Your task to perform on an android device: View the shopping cart on newegg. Add panasonic triple a to the cart on newegg Image 0: 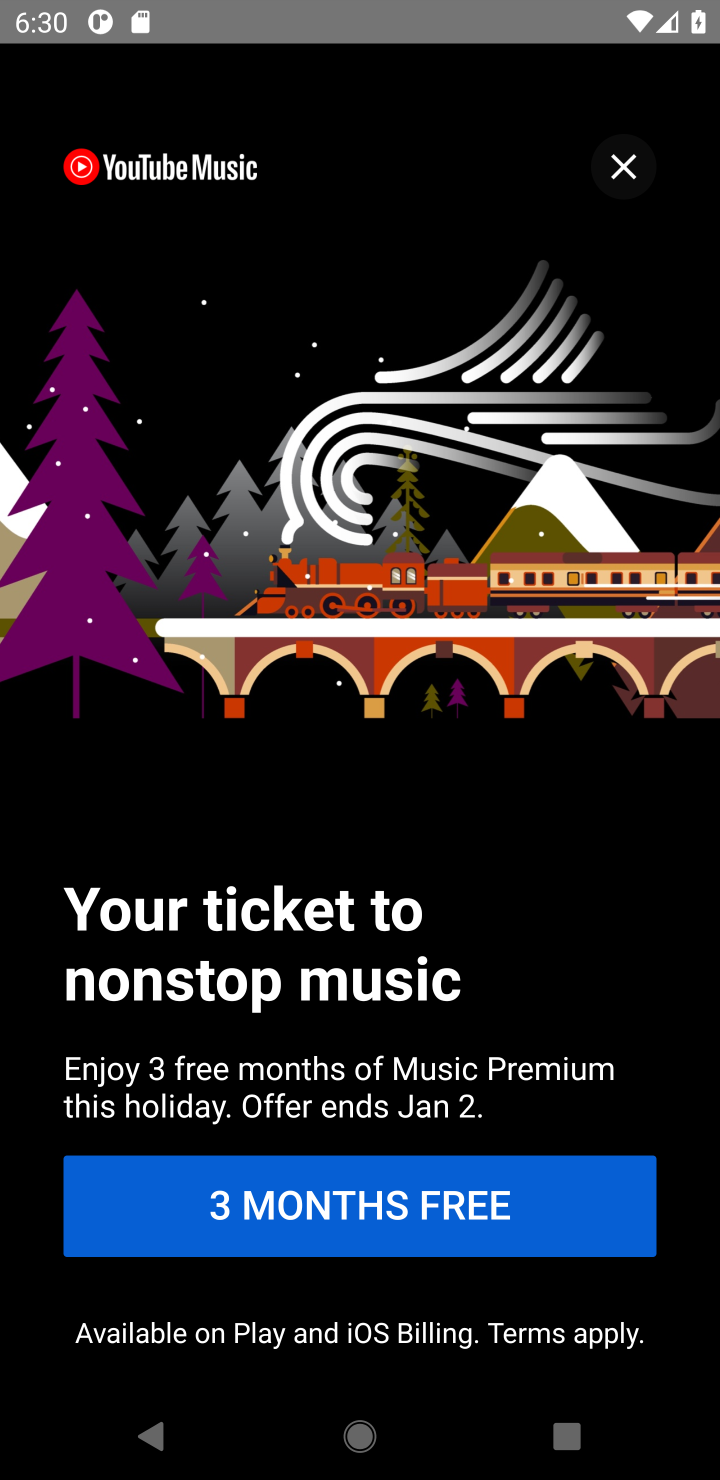
Step 0: press home button
Your task to perform on an android device: View the shopping cart on newegg. Add panasonic triple a to the cart on newegg Image 1: 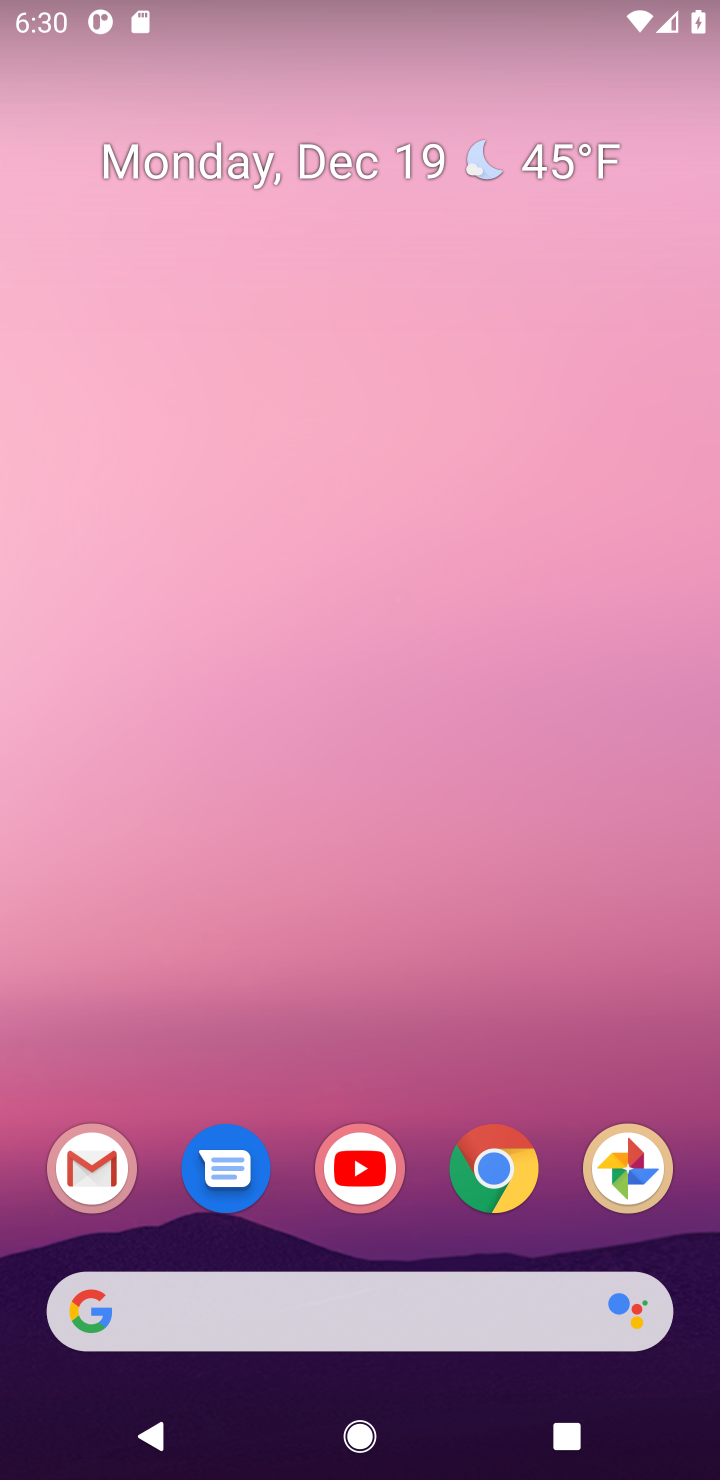
Step 1: click (503, 1169)
Your task to perform on an android device: View the shopping cart on newegg. Add panasonic triple a to the cart on newegg Image 2: 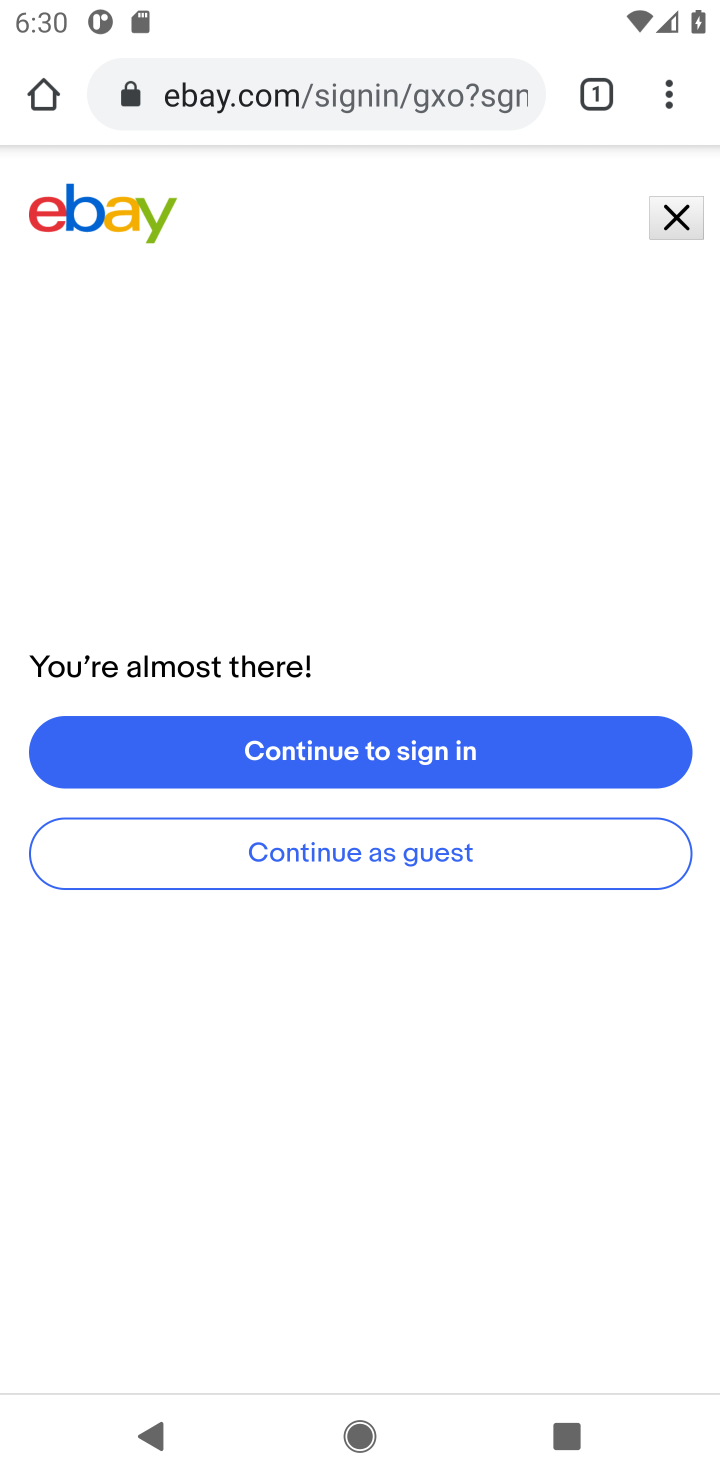
Step 2: click (335, 86)
Your task to perform on an android device: View the shopping cart on newegg. Add panasonic triple a to the cart on newegg Image 3: 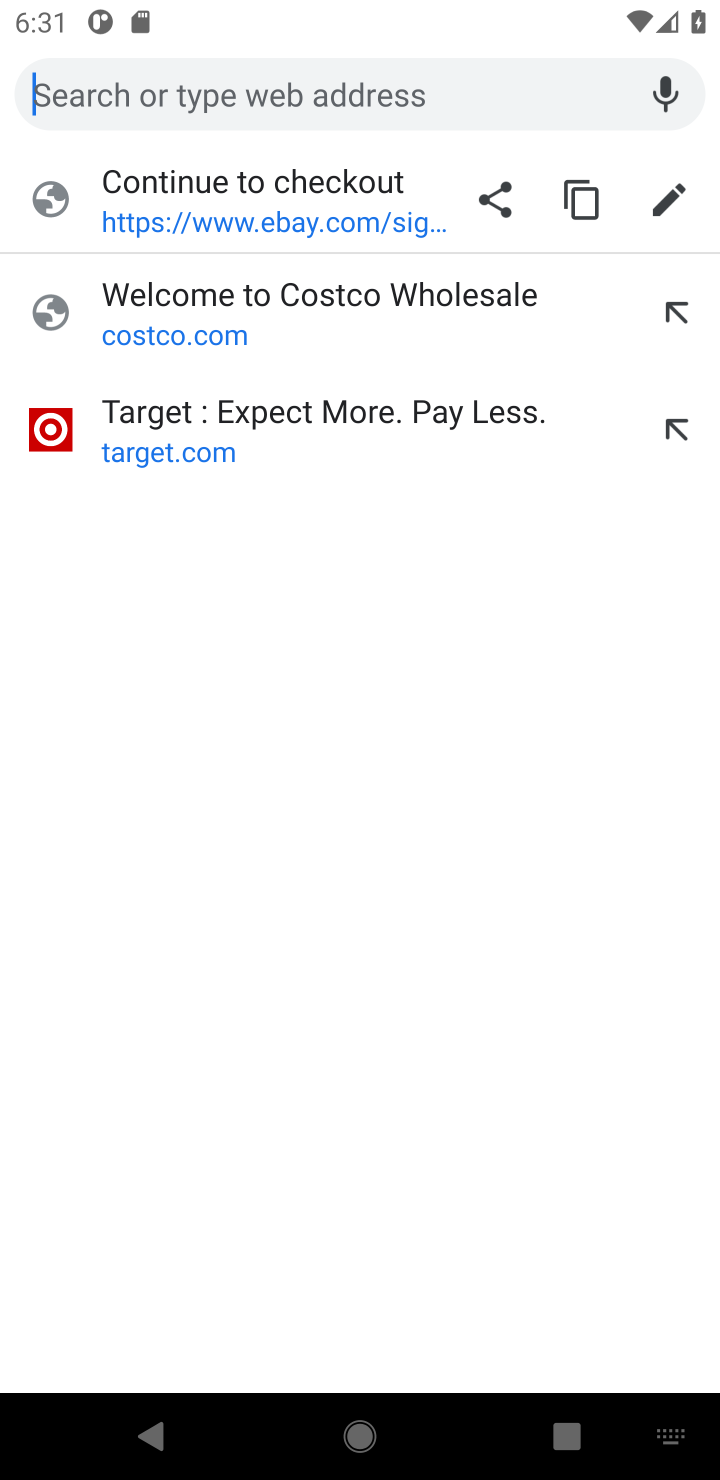
Step 3: type "newegg.com"
Your task to perform on an android device: View the shopping cart on newegg. Add panasonic triple a to the cart on newegg Image 4: 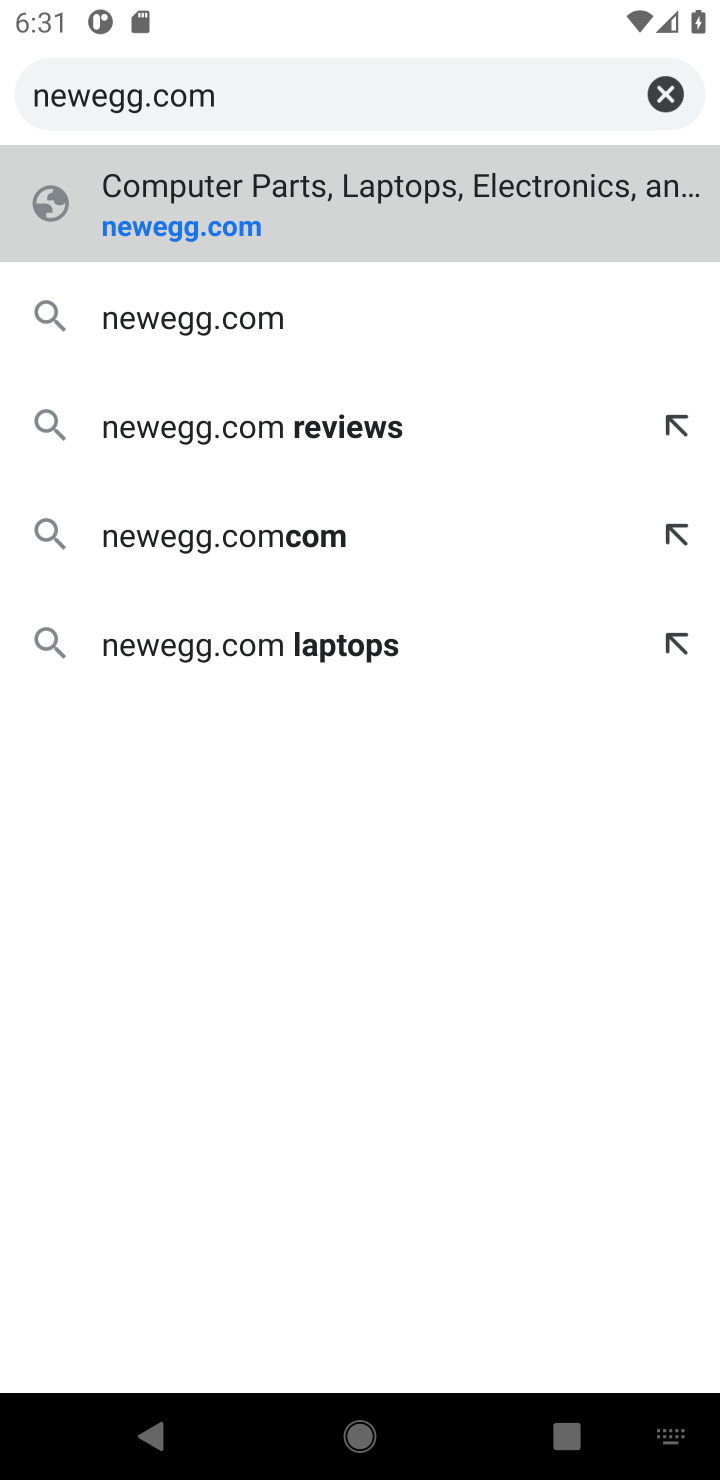
Step 4: click (129, 219)
Your task to perform on an android device: View the shopping cart on newegg. Add panasonic triple a to the cart on newegg Image 5: 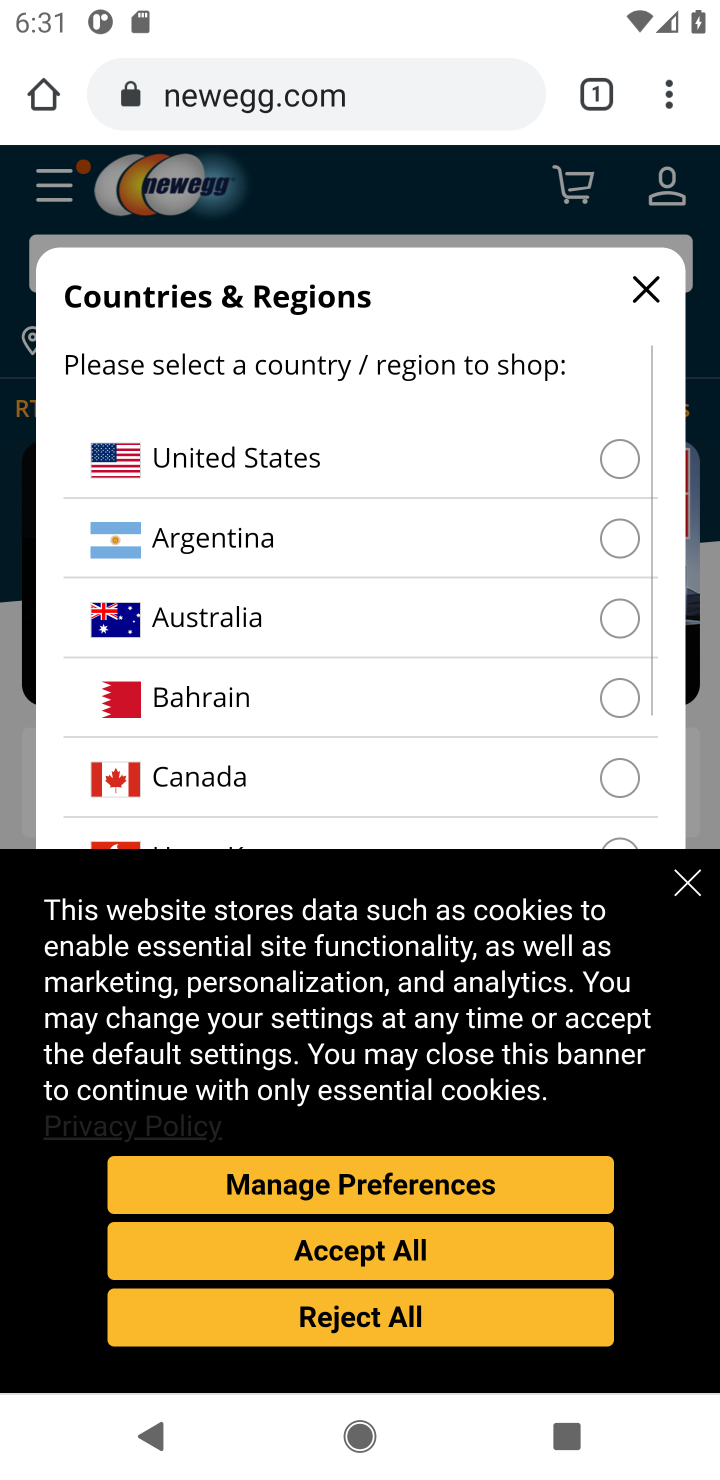
Step 5: click (688, 882)
Your task to perform on an android device: View the shopping cart on newegg. Add panasonic triple a to the cart on newegg Image 6: 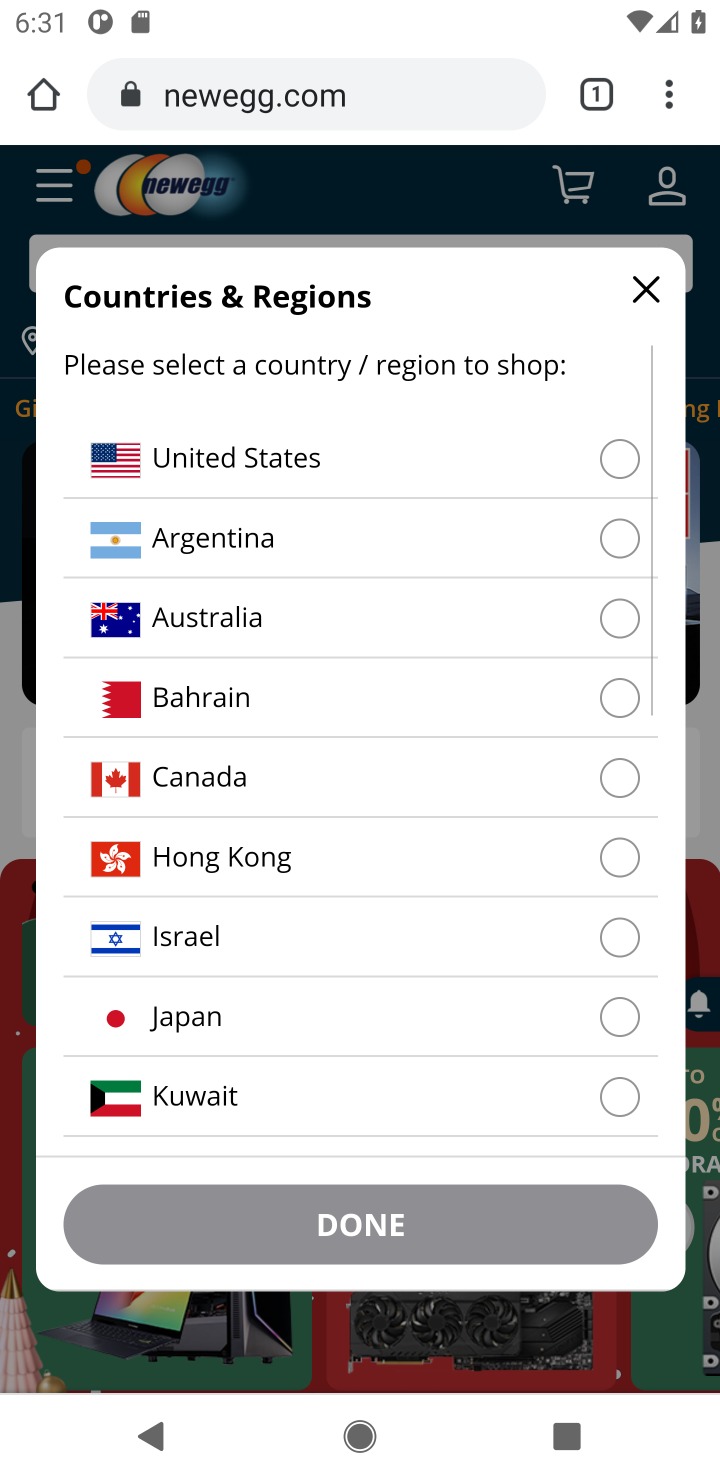
Step 6: click (237, 461)
Your task to perform on an android device: View the shopping cart on newegg. Add panasonic triple a to the cart on newegg Image 7: 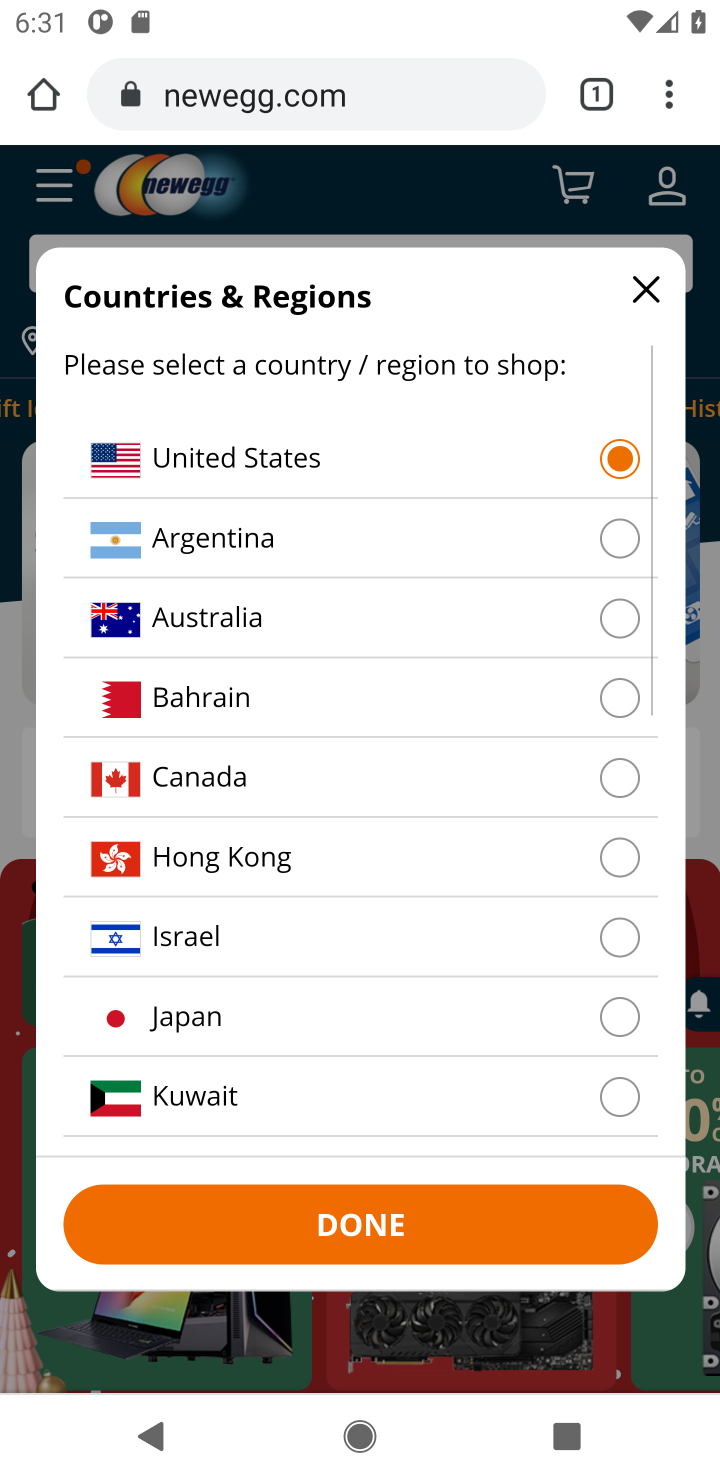
Step 7: click (330, 1234)
Your task to perform on an android device: View the shopping cart on newegg. Add panasonic triple a to the cart on newegg Image 8: 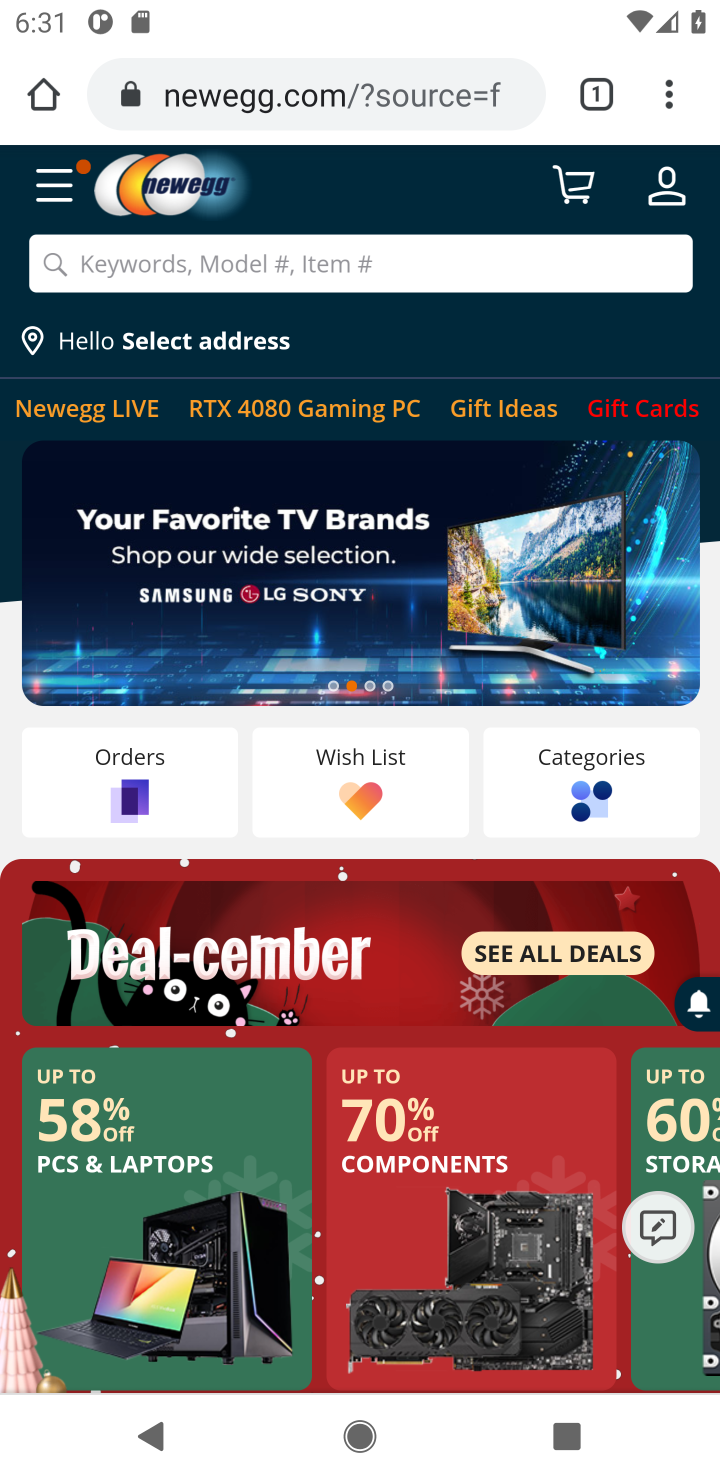
Step 8: click (576, 199)
Your task to perform on an android device: View the shopping cart on newegg. Add panasonic triple a to the cart on newegg Image 9: 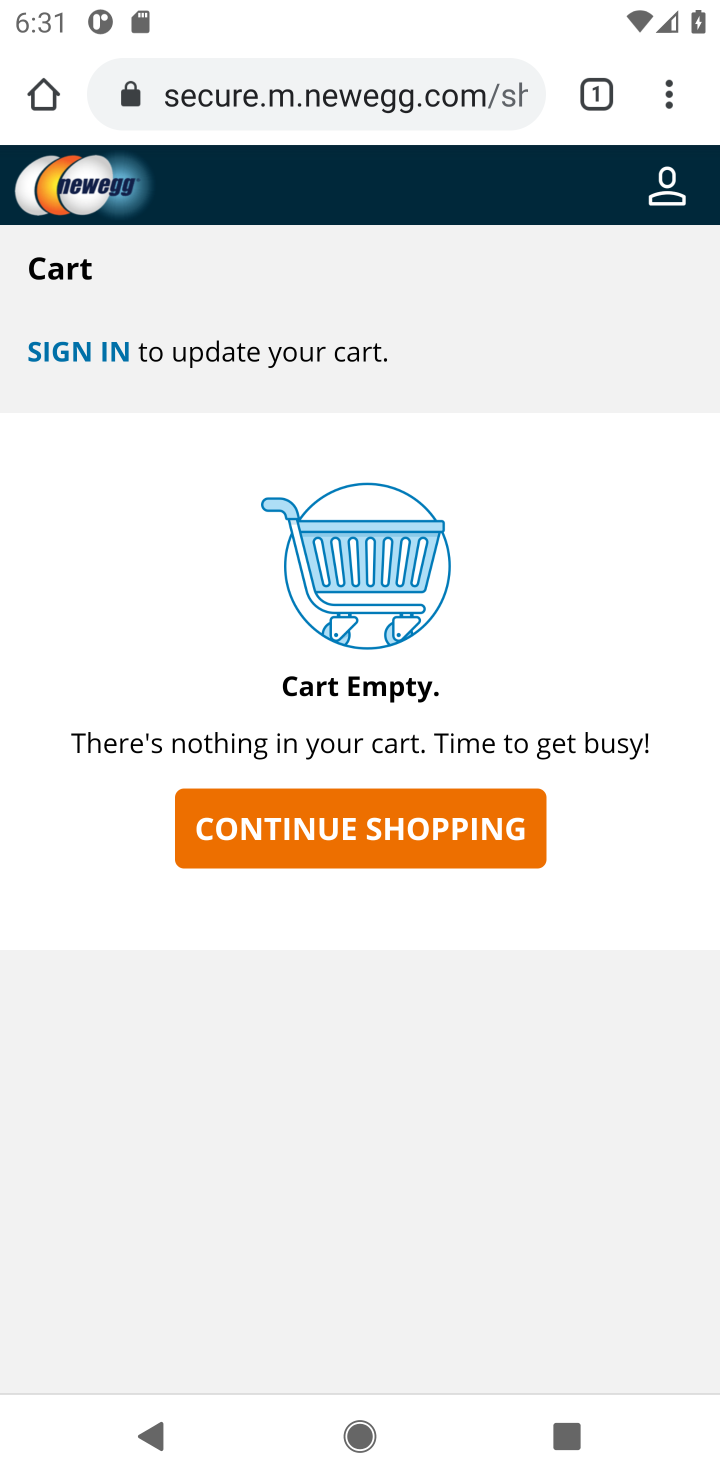
Step 9: click (367, 845)
Your task to perform on an android device: View the shopping cart on newegg. Add panasonic triple a to the cart on newegg Image 10: 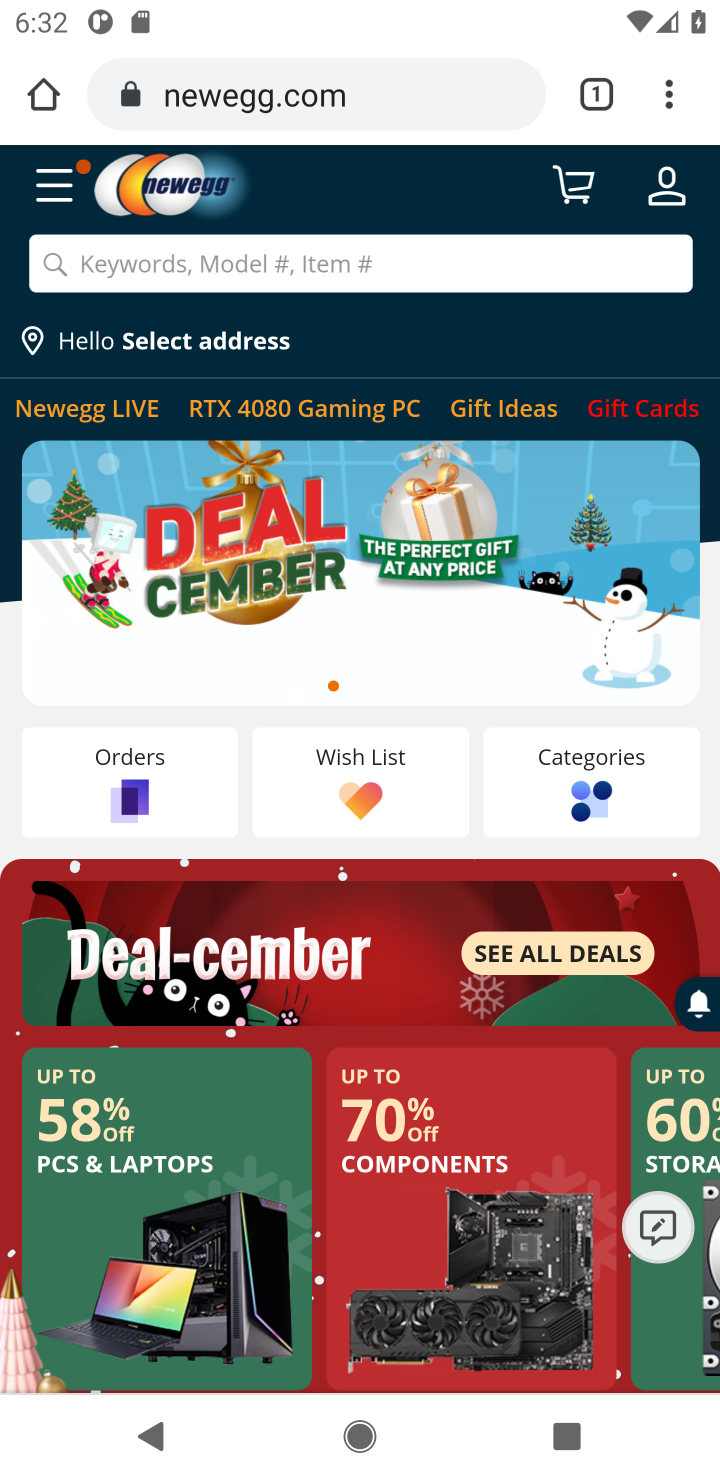
Step 10: click (218, 273)
Your task to perform on an android device: View the shopping cart on newegg. Add panasonic triple a to the cart on newegg Image 11: 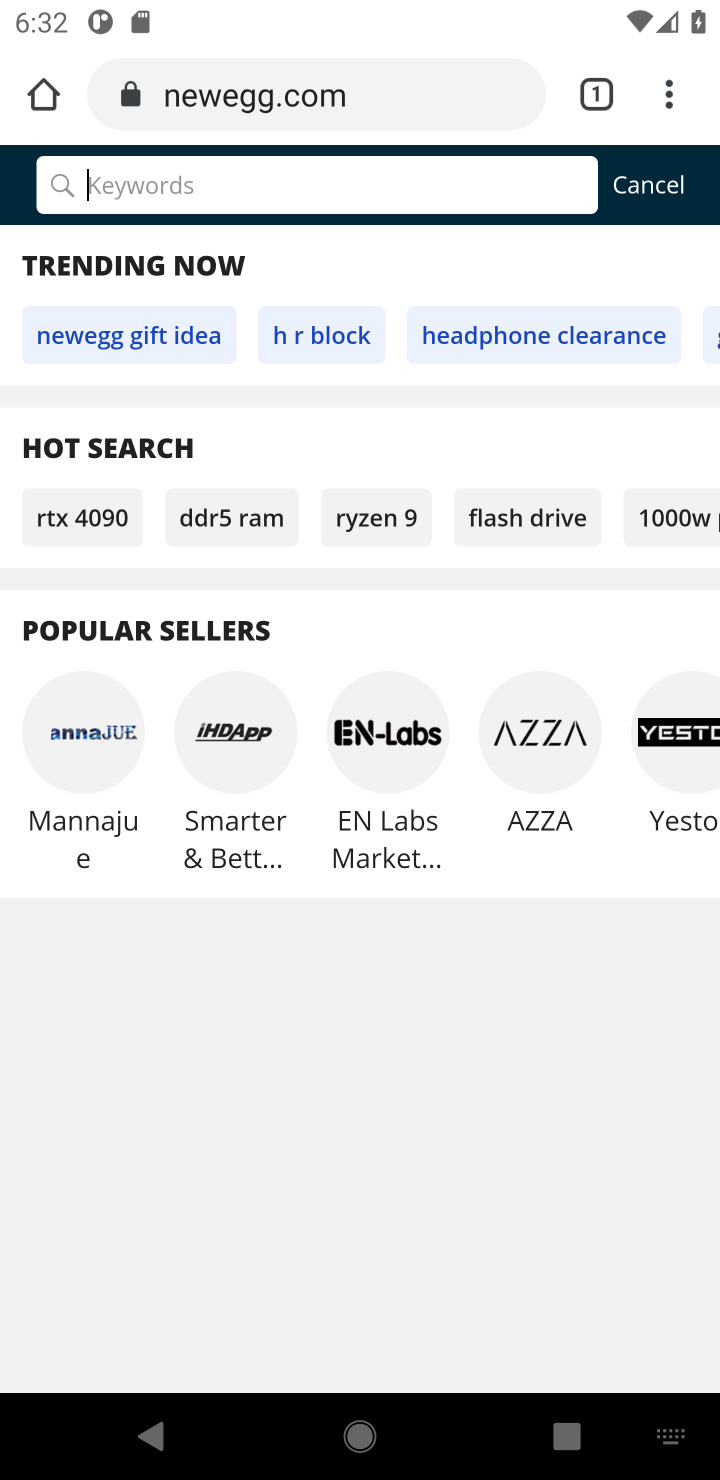
Step 11: type " panasonic triple a"
Your task to perform on an android device: View the shopping cart on newegg. Add panasonic triple a to the cart on newegg Image 12: 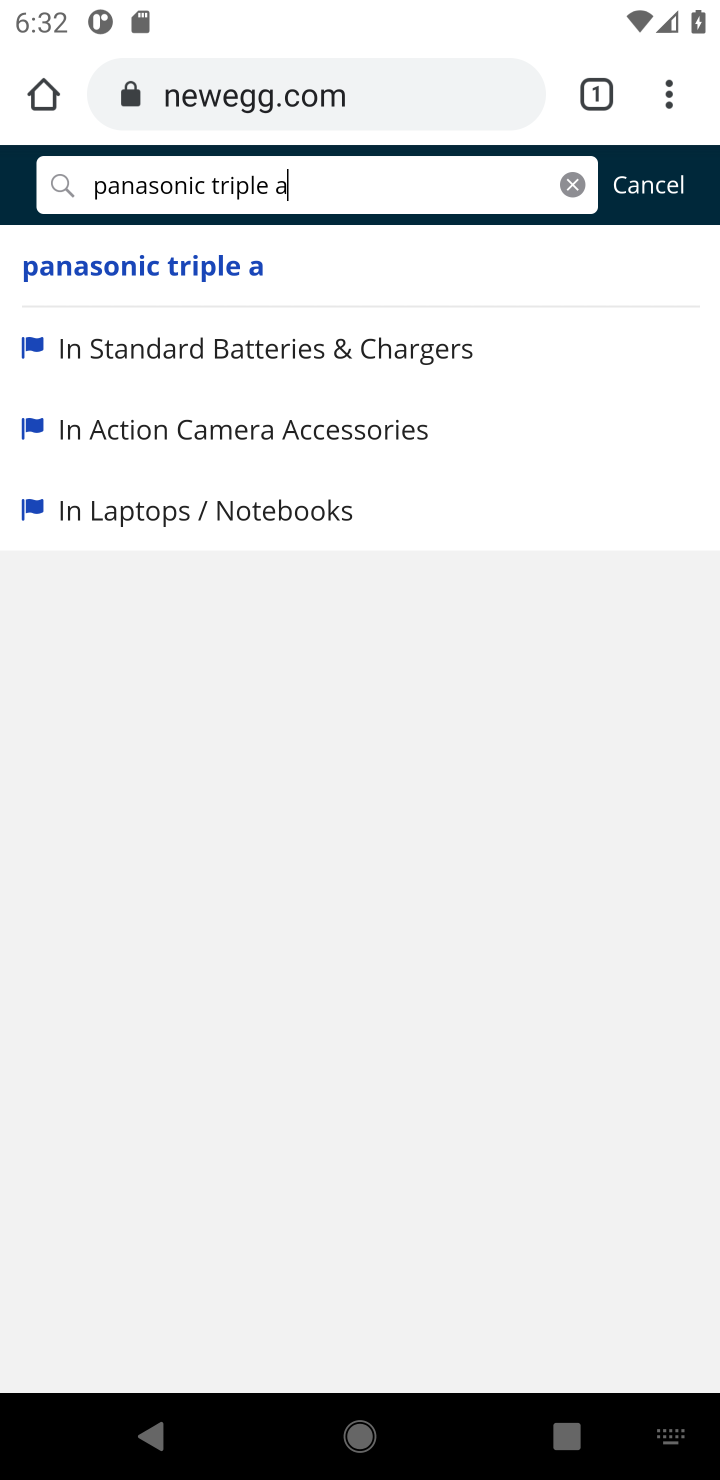
Step 12: click (118, 282)
Your task to perform on an android device: View the shopping cart on newegg. Add panasonic triple a to the cart on newegg Image 13: 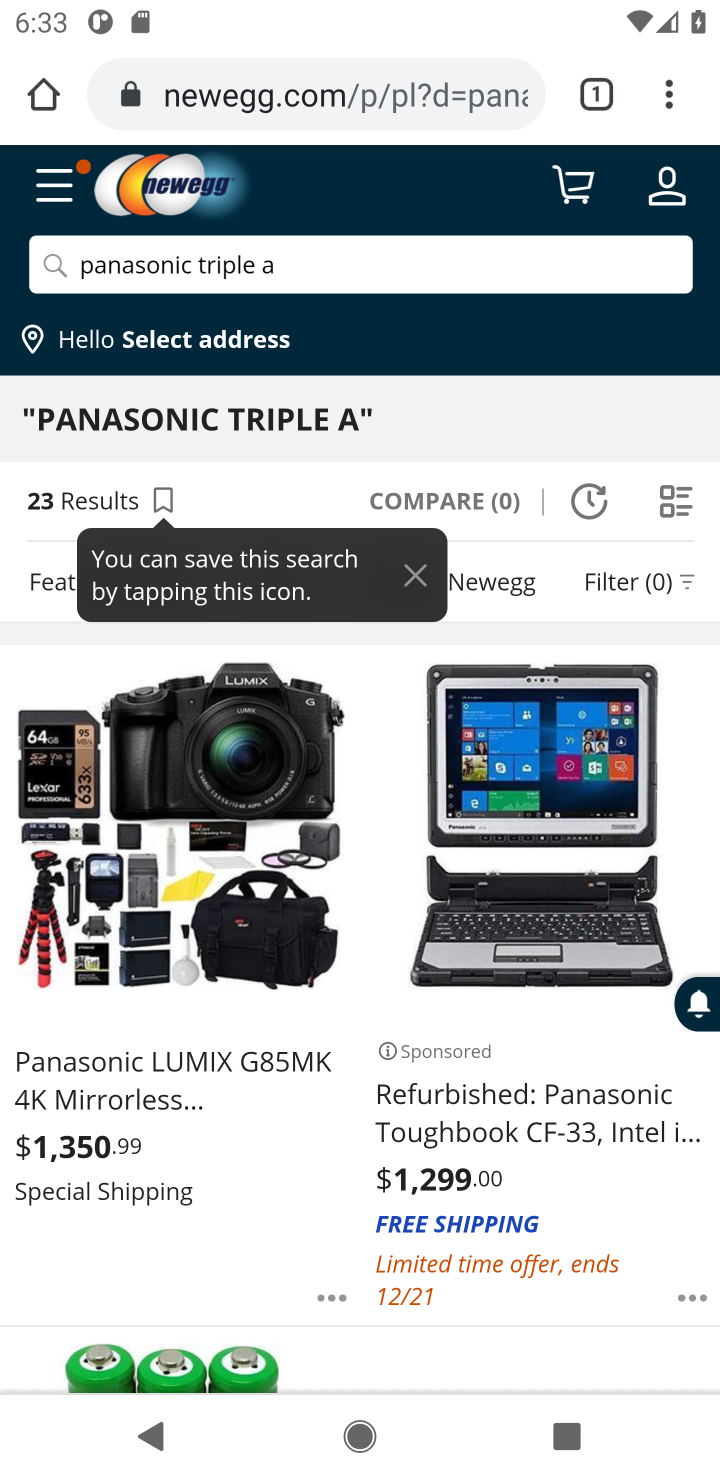
Step 13: drag from (272, 854) to (271, 608)
Your task to perform on an android device: View the shopping cart on newegg. Add panasonic triple a to the cart on newegg Image 14: 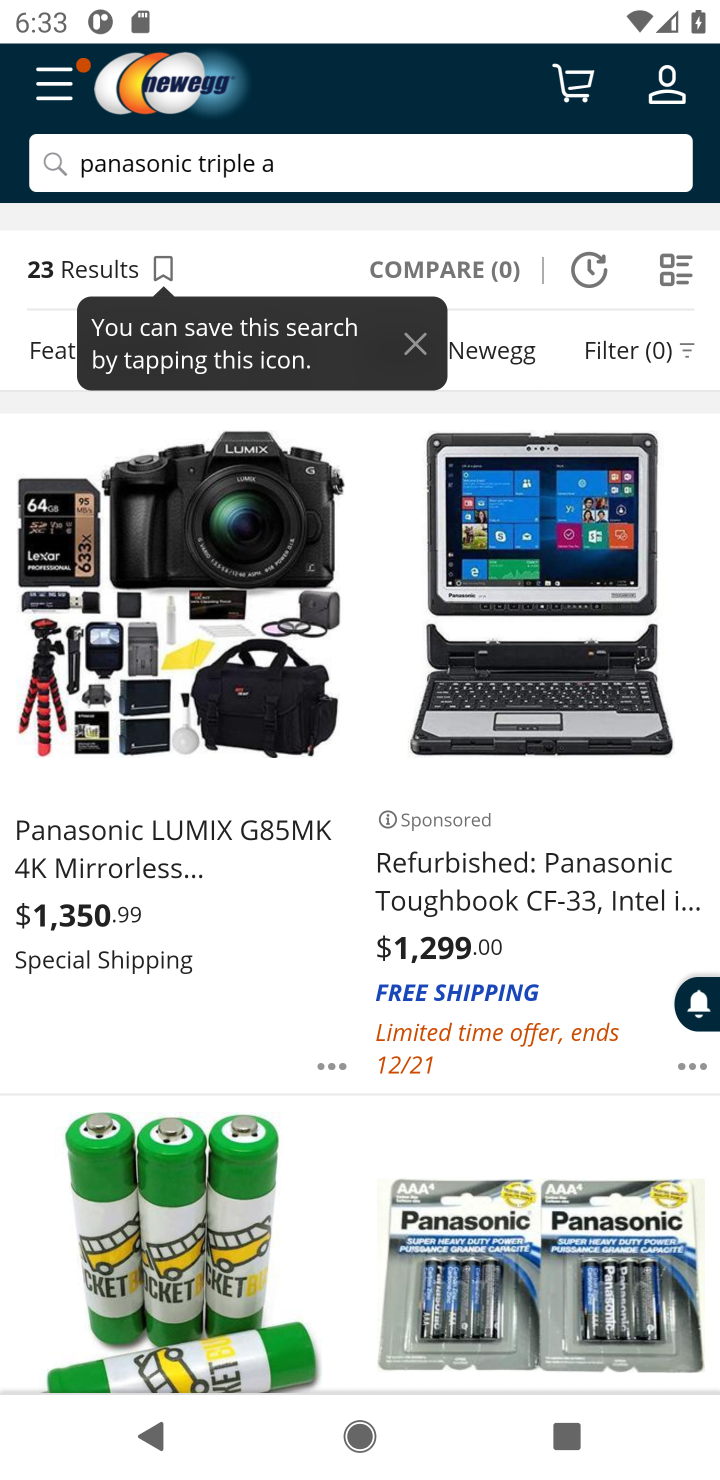
Step 14: drag from (252, 1117) to (316, 452)
Your task to perform on an android device: View the shopping cart on newegg. Add panasonic triple a to the cart on newegg Image 15: 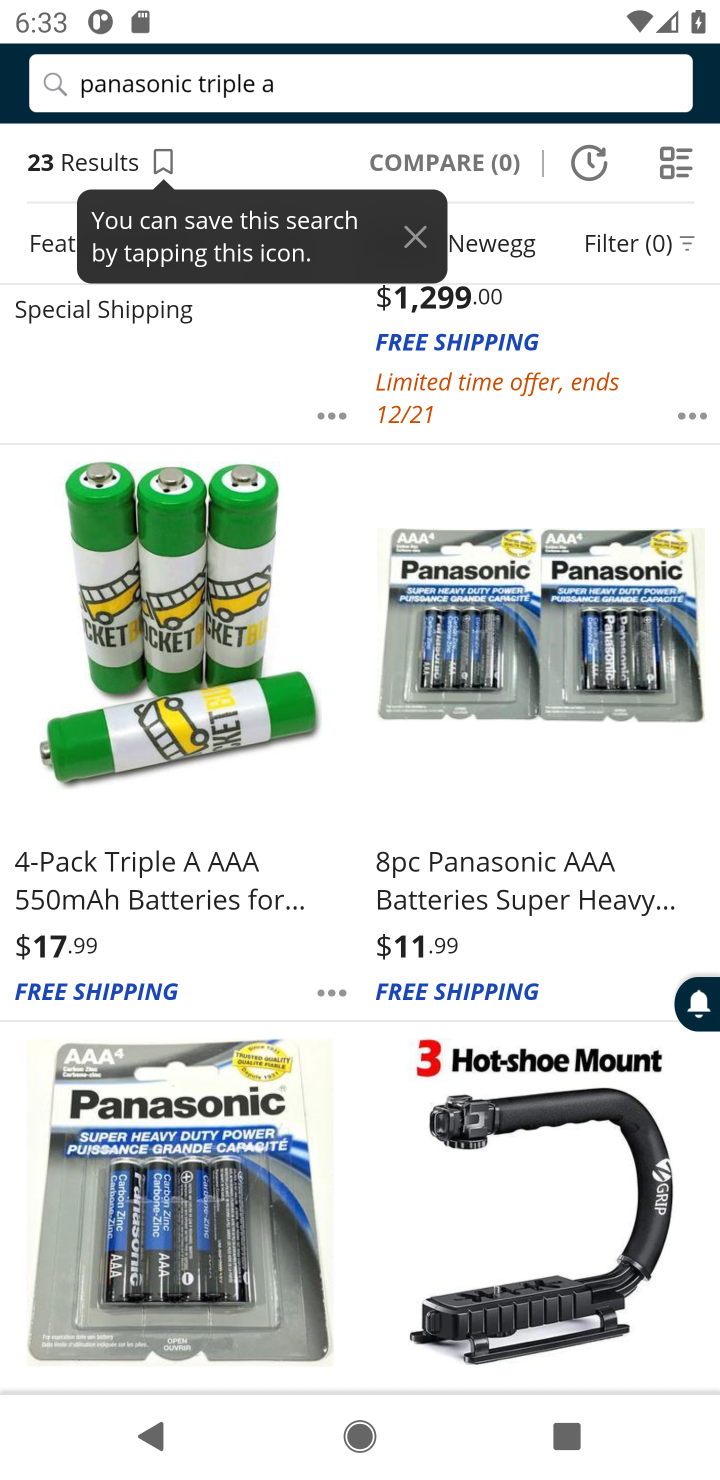
Step 15: click (527, 884)
Your task to perform on an android device: View the shopping cart on newegg. Add panasonic triple a to the cart on newegg Image 16: 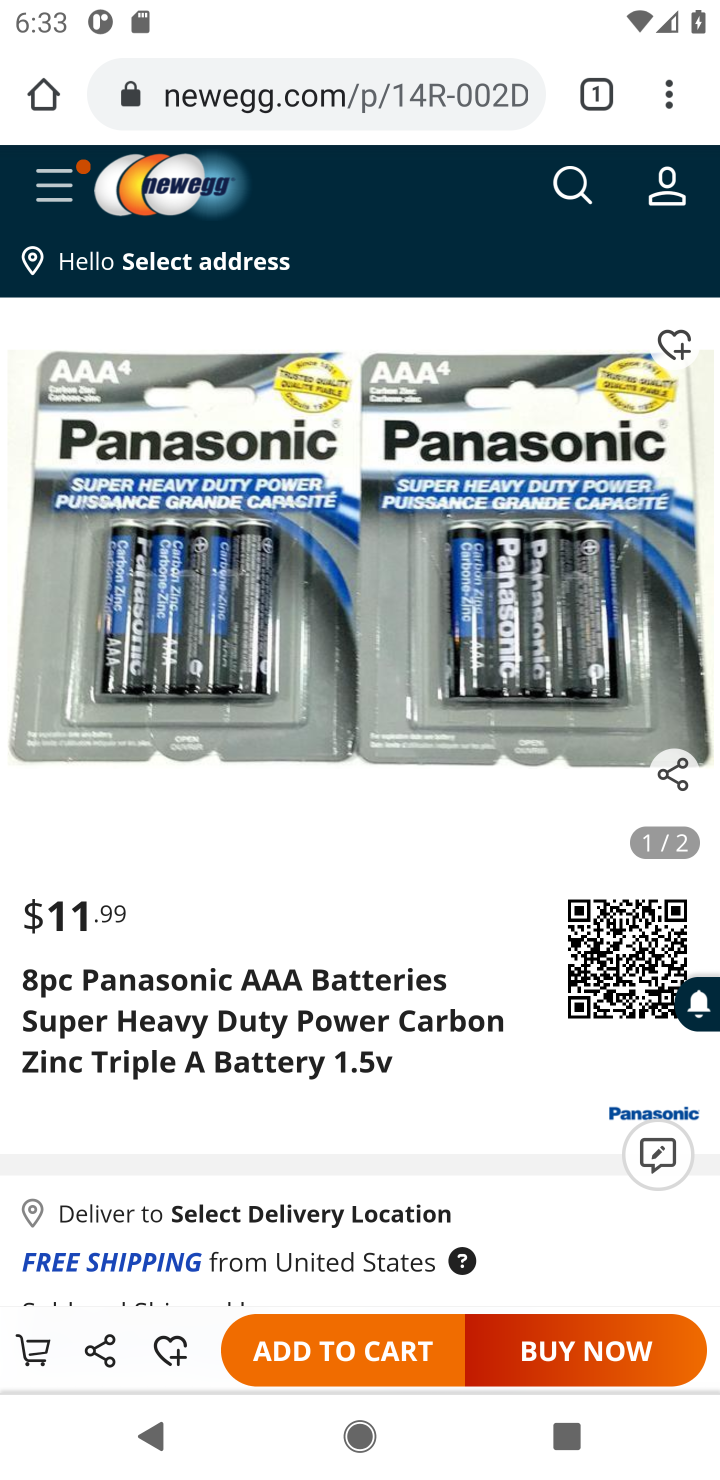
Step 16: click (327, 1361)
Your task to perform on an android device: View the shopping cart on newegg. Add panasonic triple a to the cart on newegg Image 17: 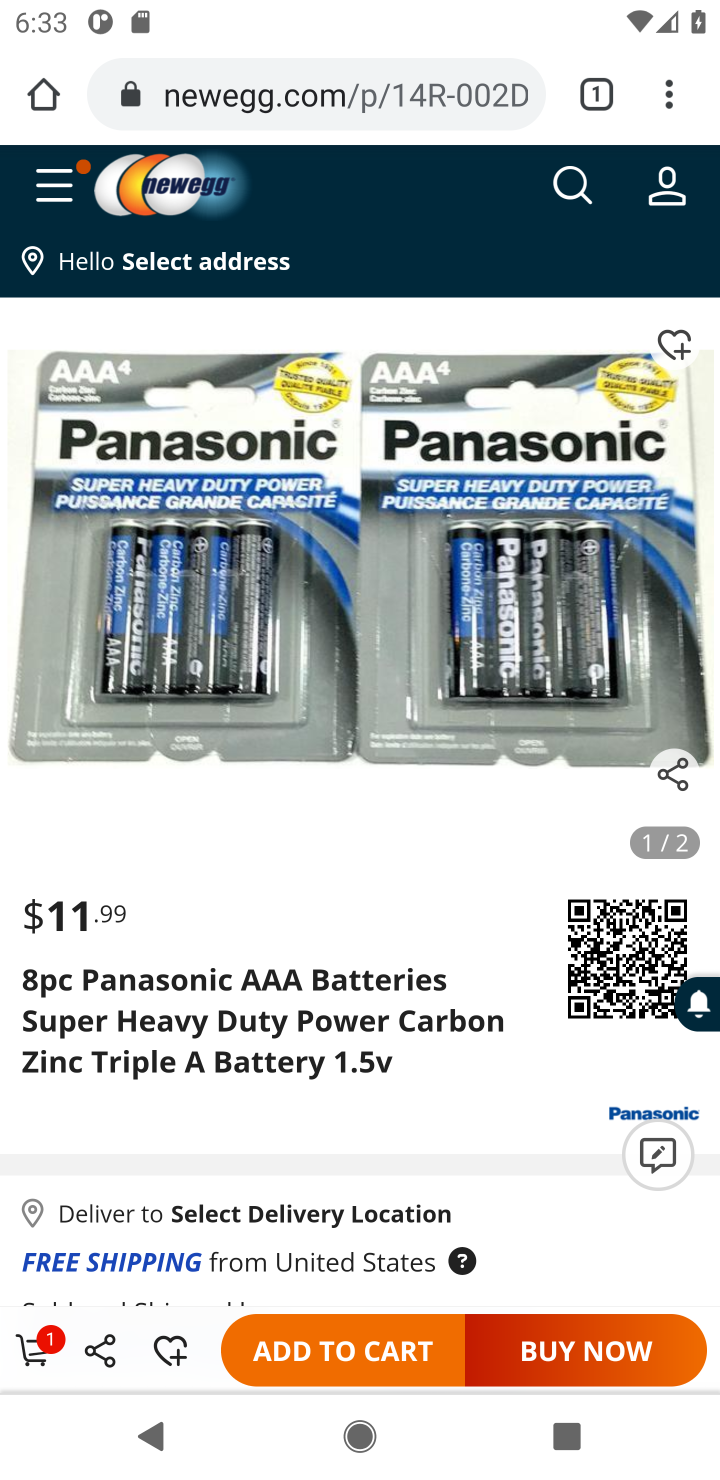
Step 17: task complete